Your task to perform on an android device: toggle wifi Image 0: 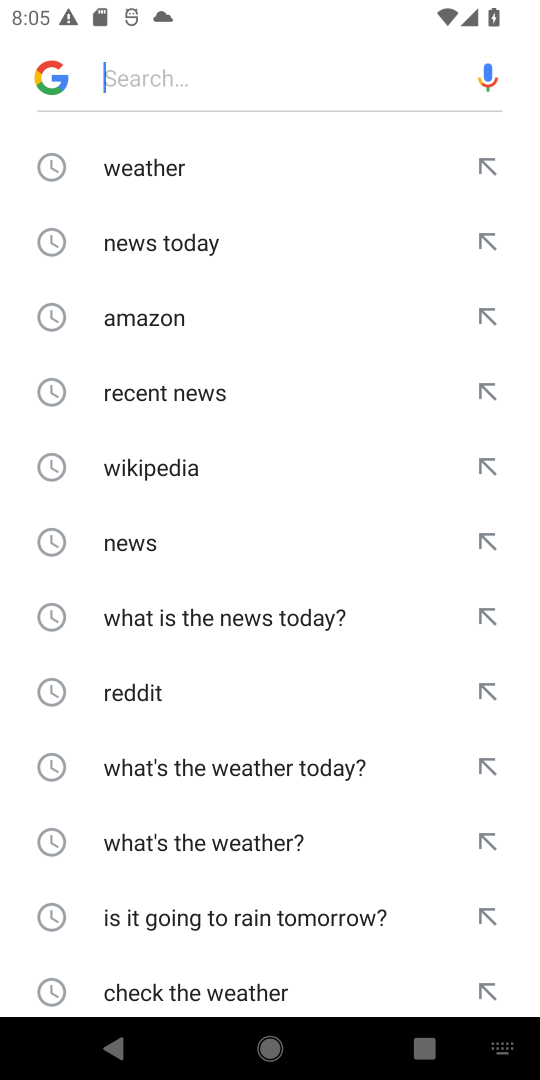
Step 0: press home button
Your task to perform on an android device: toggle wifi Image 1: 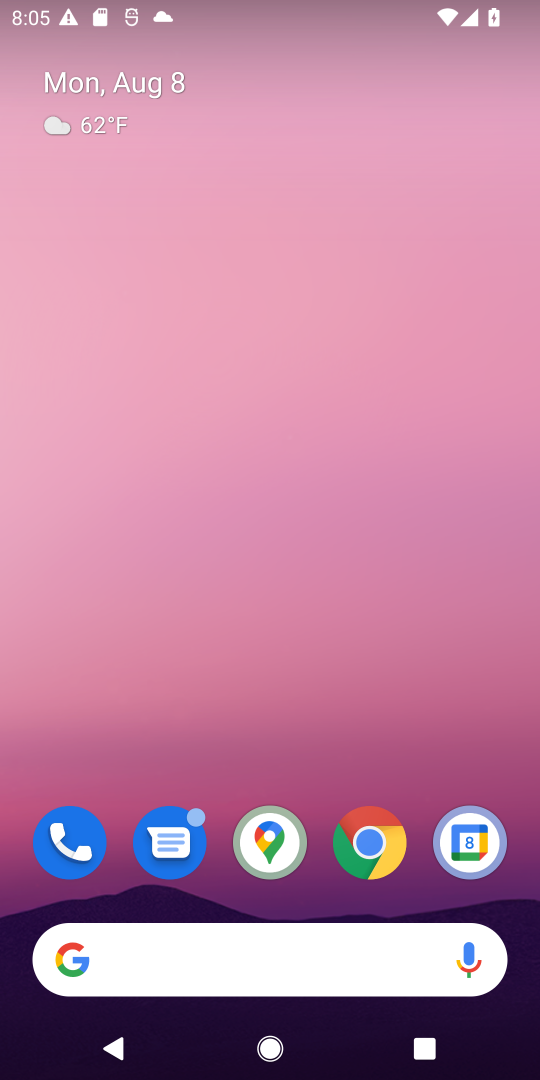
Step 1: drag from (277, 698) to (323, 0)
Your task to perform on an android device: toggle wifi Image 2: 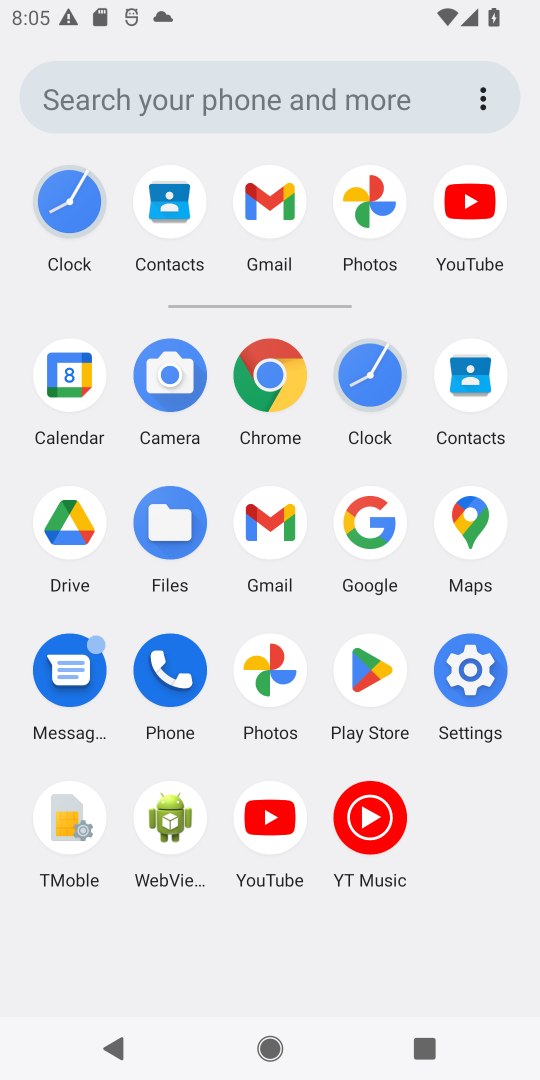
Step 2: click (466, 670)
Your task to perform on an android device: toggle wifi Image 3: 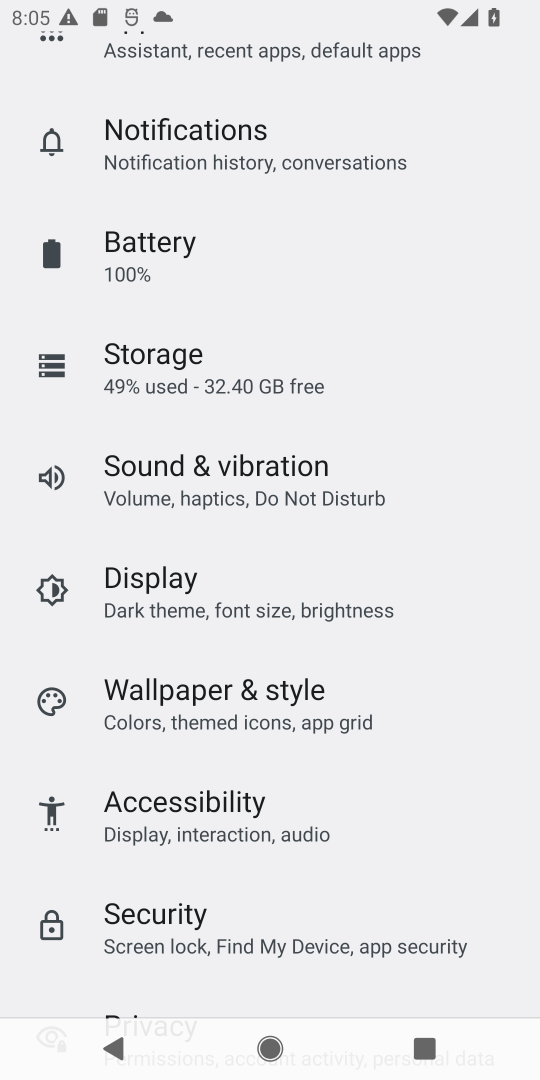
Step 3: drag from (315, 312) to (303, 891)
Your task to perform on an android device: toggle wifi Image 4: 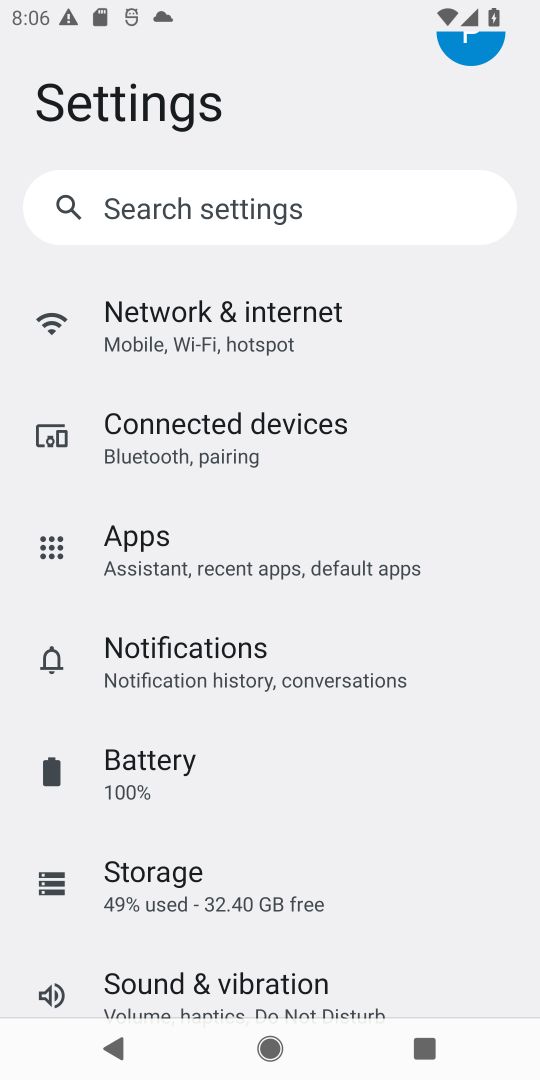
Step 4: click (279, 324)
Your task to perform on an android device: toggle wifi Image 5: 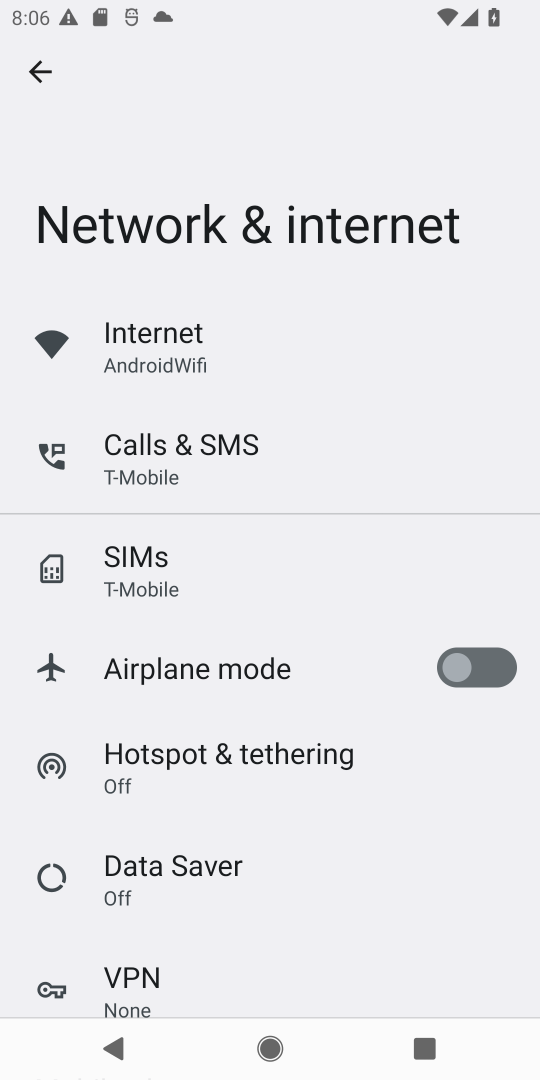
Step 5: click (180, 339)
Your task to perform on an android device: toggle wifi Image 6: 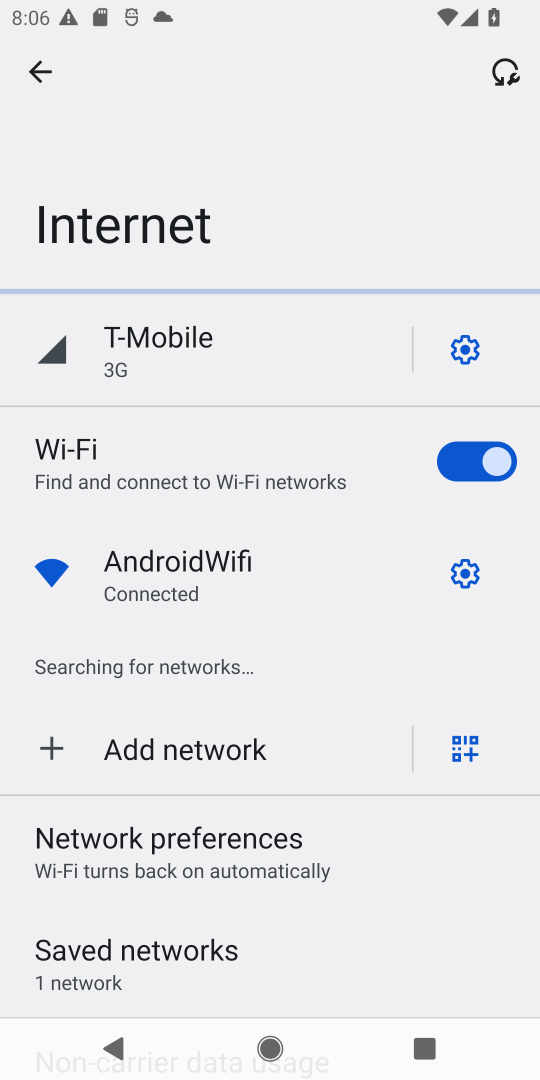
Step 6: task complete